Your task to perform on an android device: turn off location Image 0: 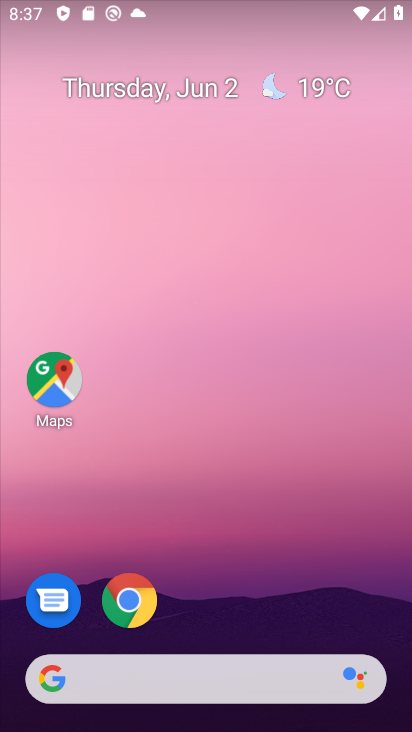
Step 0: drag from (202, 614) to (268, 2)
Your task to perform on an android device: turn off location Image 1: 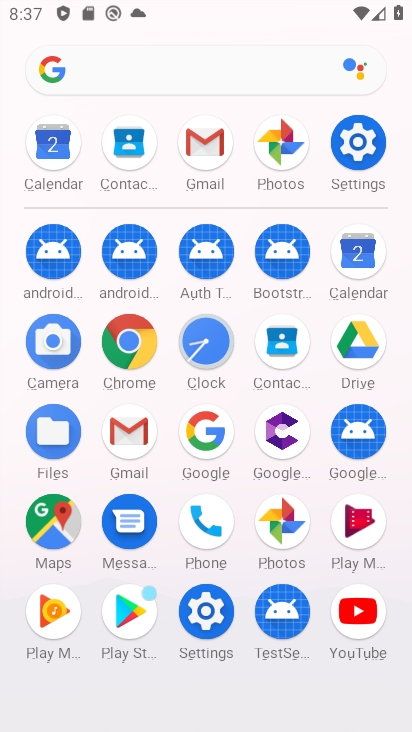
Step 1: click (341, 135)
Your task to perform on an android device: turn off location Image 2: 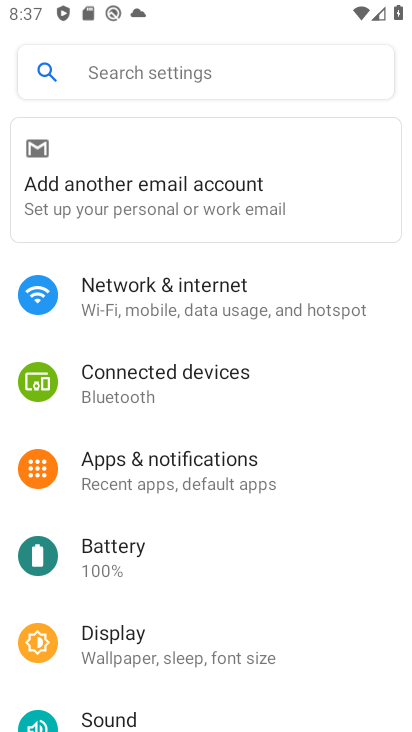
Step 2: drag from (198, 636) to (208, 349)
Your task to perform on an android device: turn off location Image 3: 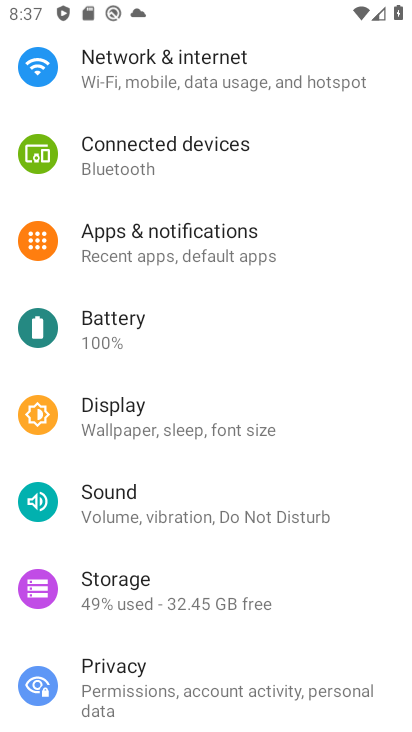
Step 3: drag from (235, 620) to (187, 512)
Your task to perform on an android device: turn off location Image 4: 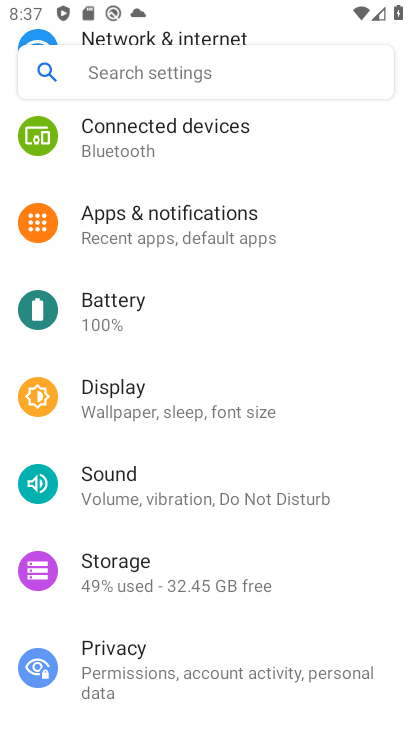
Step 4: drag from (204, 657) to (204, 290)
Your task to perform on an android device: turn off location Image 5: 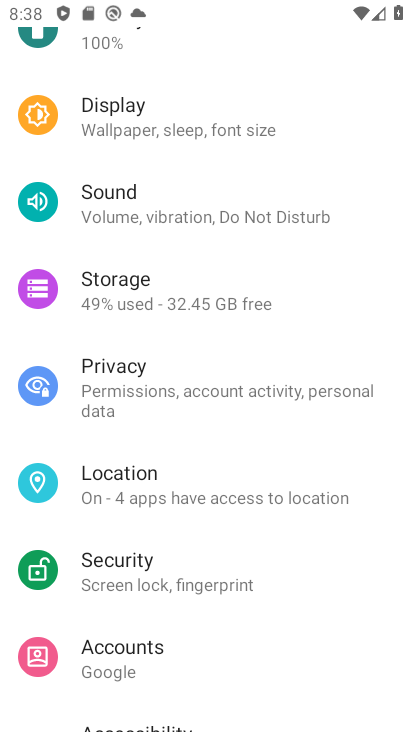
Step 5: click (169, 502)
Your task to perform on an android device: turn off location Image 6: 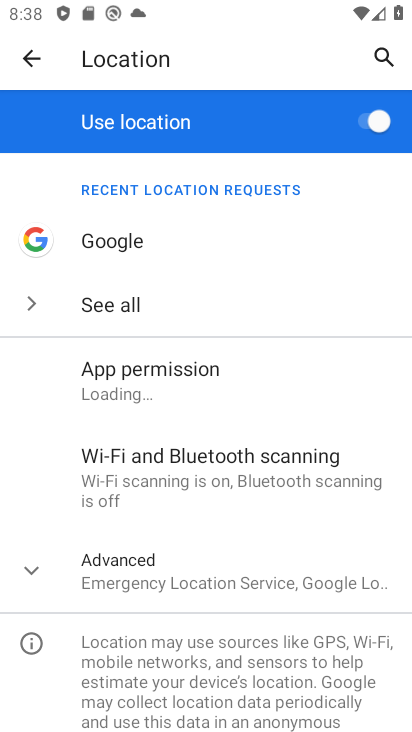
Step 6: click (363, 123)
Your task to perform on an android device: turn off location Image 7: 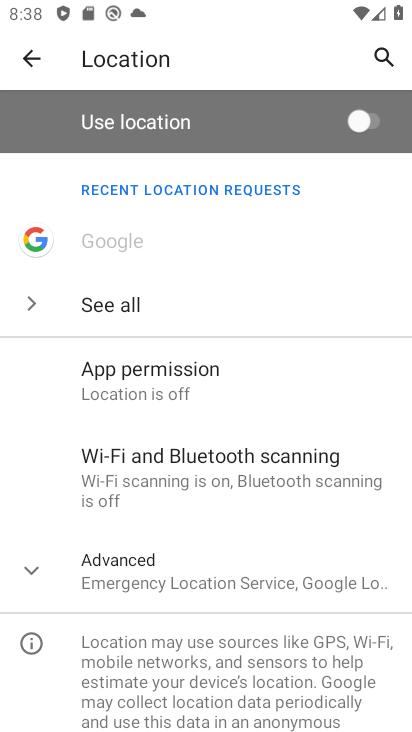
Step 7: task complete